Your task to perform on an android device: check android version Image 0: 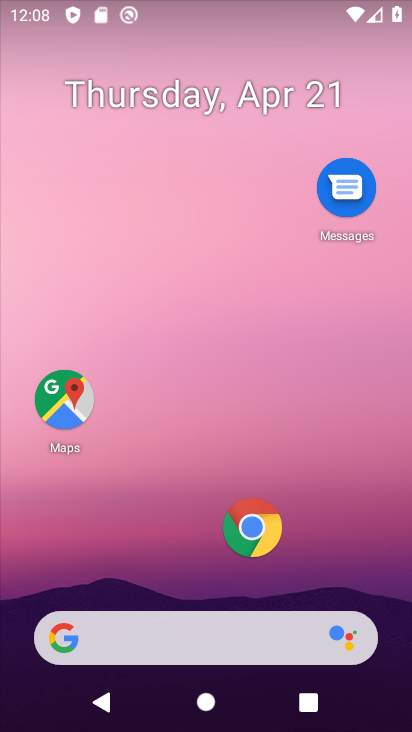
Step 0: drag from (306, 542) to (387, 96)
Your task to perform on an android device: check android version Image 1: 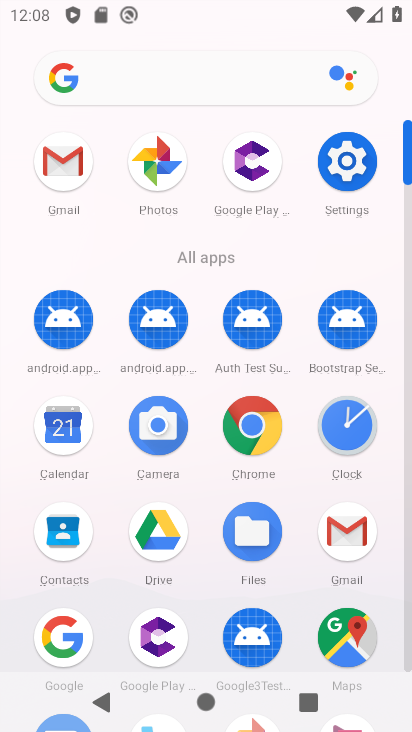
Step 1: click (332, 172)
Your task to perform on an android device: check android version Image 2: 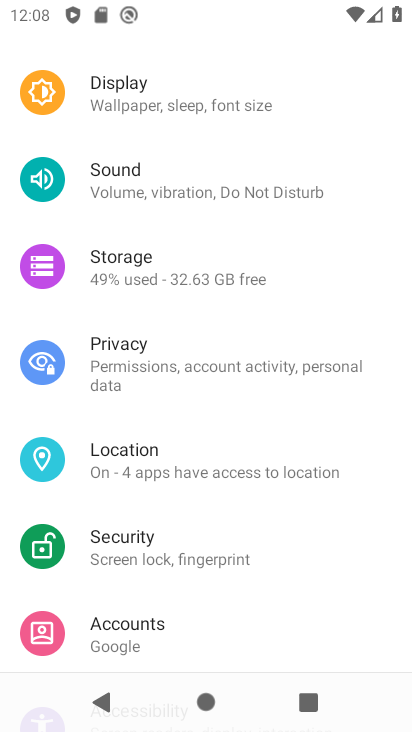
Step 2: drag from (169, 571) to (194, 373)
Your task to perform on an android device: check android version Image 3: 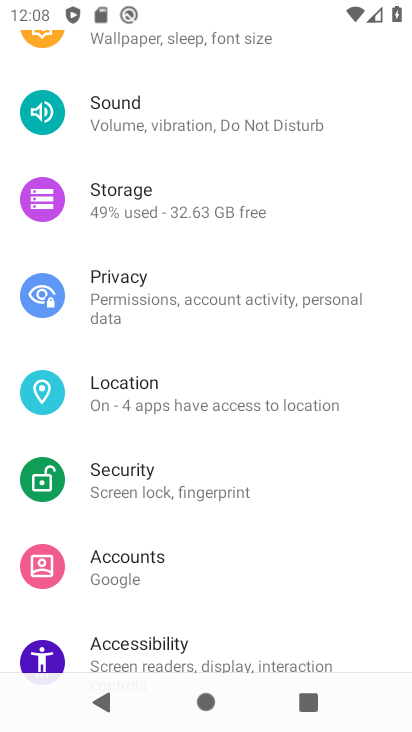
Step 3: drag from (179, 563) to (212, 331)
Your task to perform on an android device: check android version Image 4: 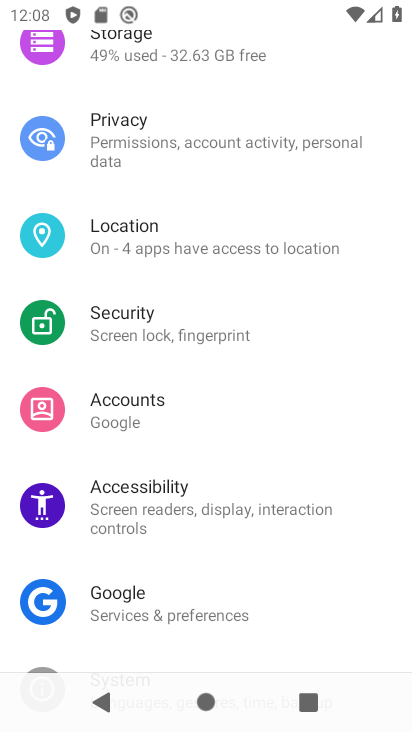
Step 4: drag from (191, 466) to (176, 345)
Your task to perform on an android device: check android version Image 5: 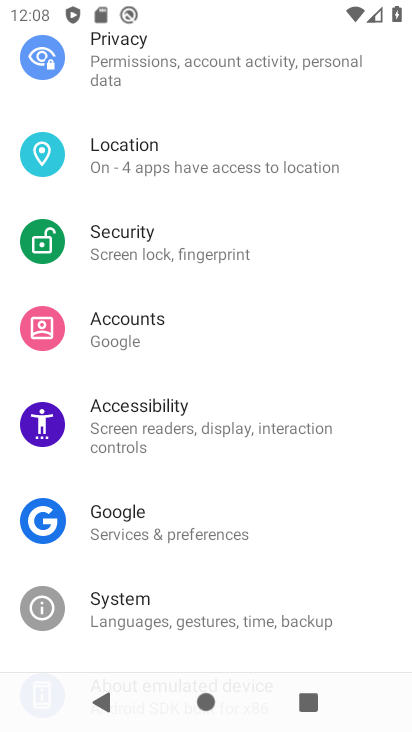
Step 5: drag from (196, 508) to (191, 347)
Your task to perform on an android device: check android version Image 6: 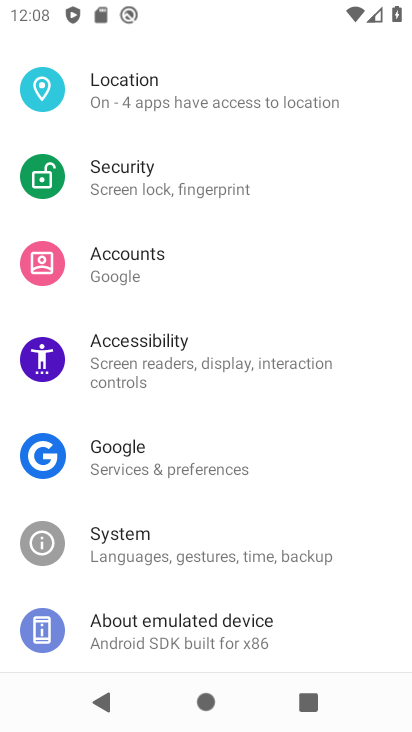
Step 6: click (122, 630)
Your task to perform on an android device: check android version Image 7: 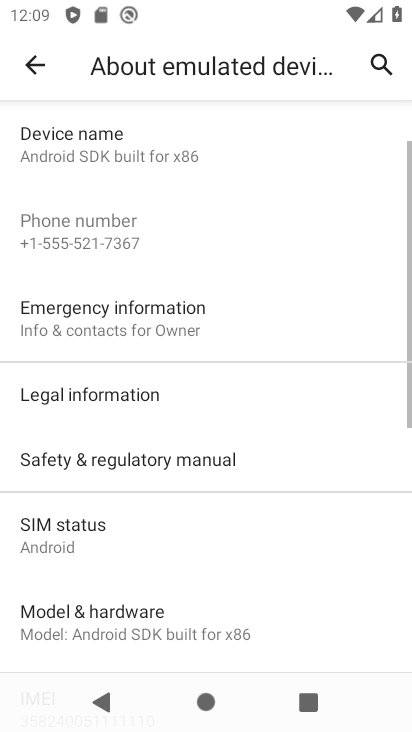
Step 7: drag from (129, 533) to (135, 458)
Your task to perform on an android device: check android version Image 8: 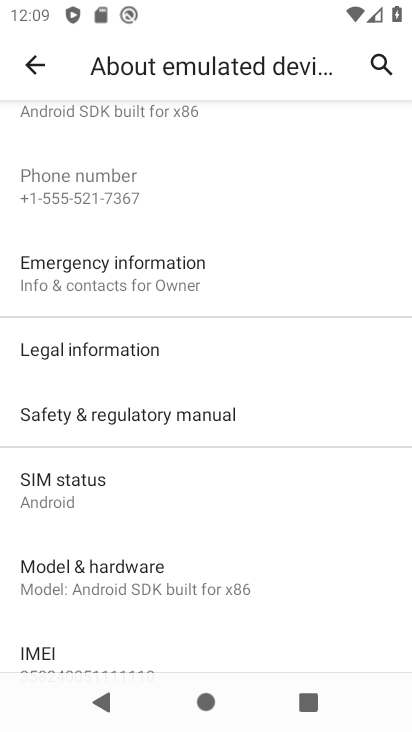
Step 8: drag from (115, 561) to (126, 465)
Your task to perform on an android device: check android version Image 9: 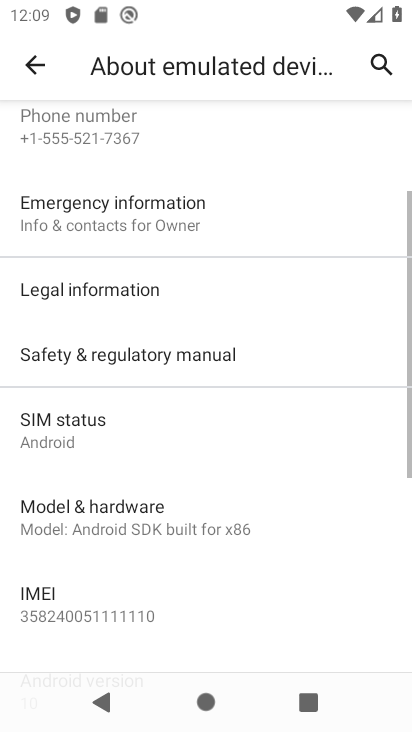
Step 9: drag from (143, 527) to (146, 458)
Your task to perform on an android device: check android version Image 10: 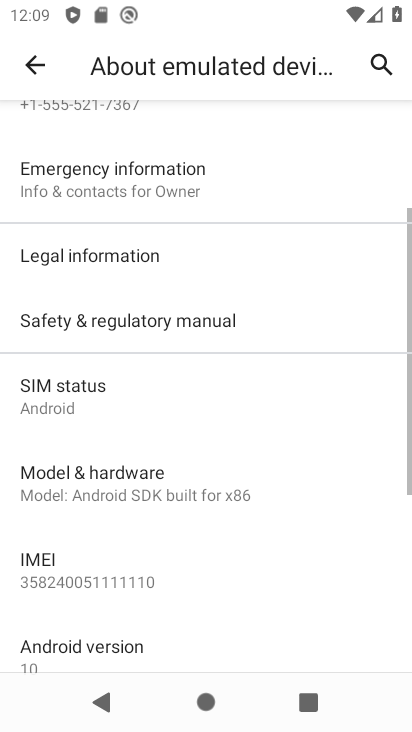
Step 10: drag from (180, 558) to (187, 448)
Your task to perform on an android device: check android version Image 11: 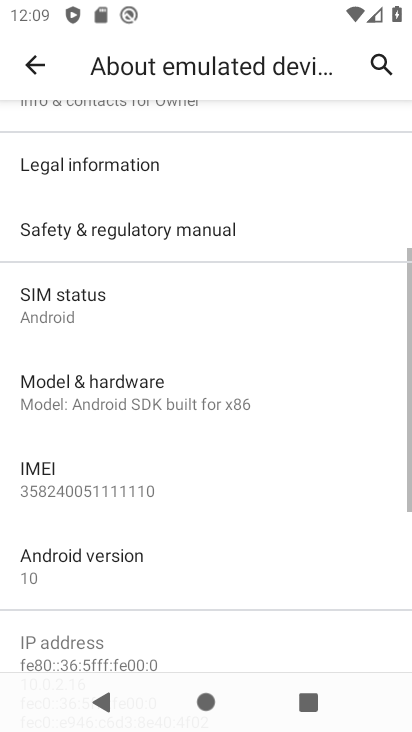
Step 11: click (107, 568)
Your task to perform on an android device: check android version Image 12: 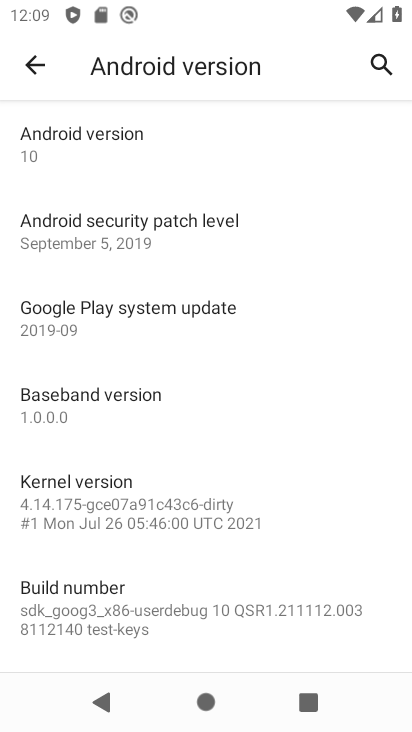
Step 12: click (274, 144)
Your task to perform on an android device: check android version Image 13: 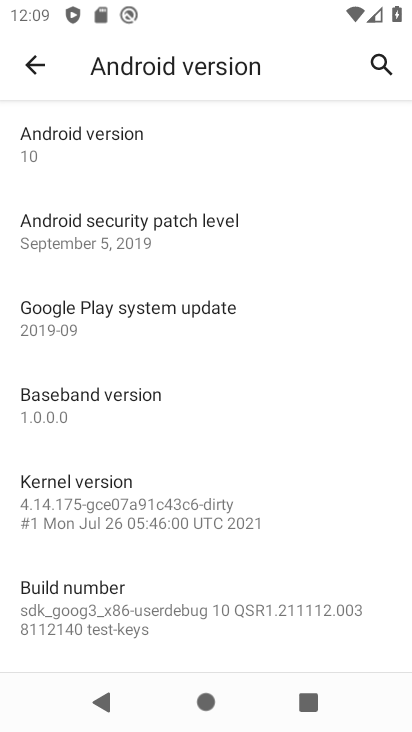
Step 13: task complete